Your task to perform on an android device: Open settings on Google Maps Image 0: 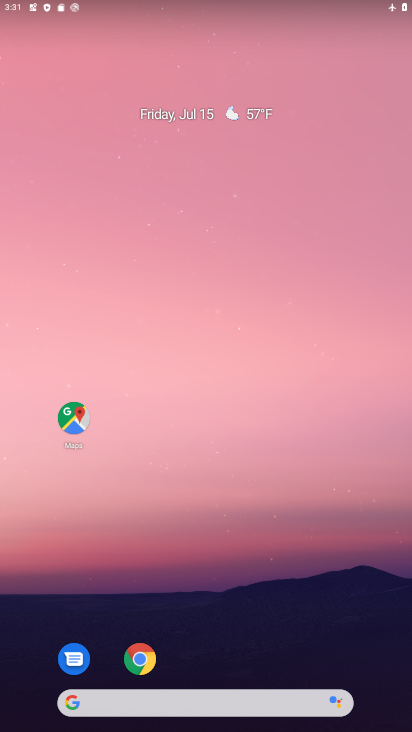
Step 0: click (82, 421)
Your task to perform on an android device: Open settings on Google Maps Image 1: 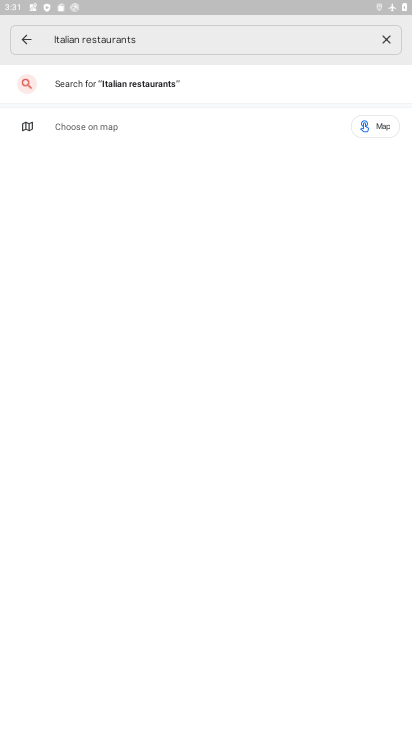
Step 1: click (37, 44)
Your task to perform on an android device: Open settings on Google Maps Image 2: 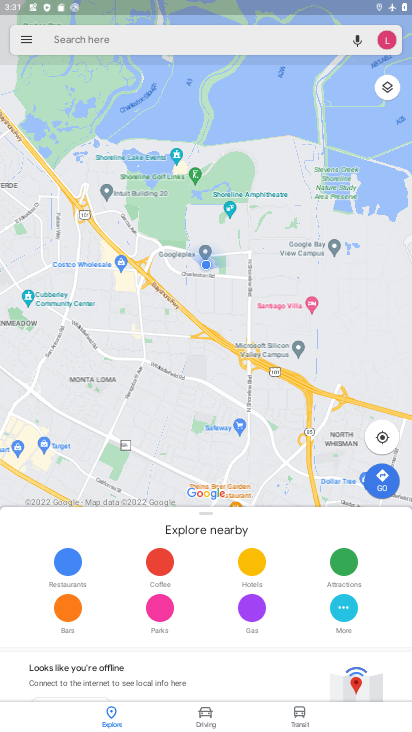
Step 2: click (27, 41)
Your task to perform on an android device: Open settings on Google Maps Image 3: 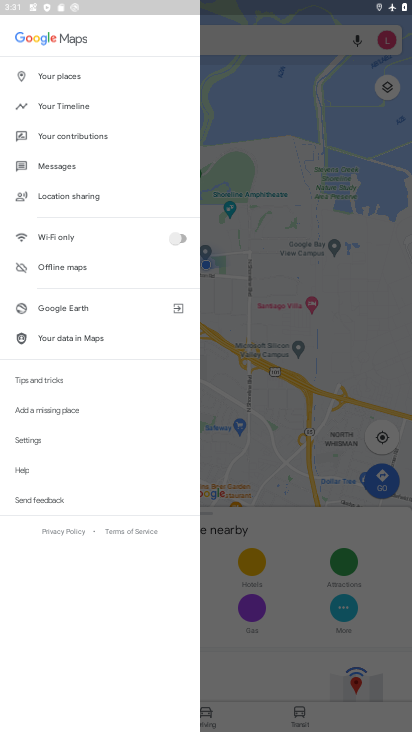
Step 3: click (49, 438)
Your task to perform on an android device: Open settings on Google Maps Image 4: 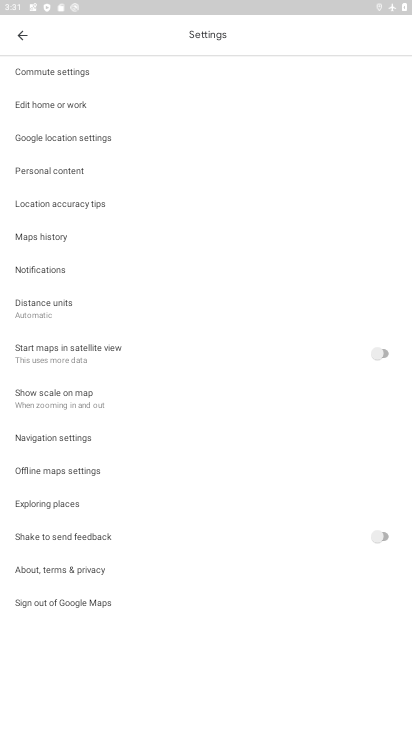
Step 4: task complete